Your task to perform on an android device: Clear the shopping cart on ebay.com. Add "acer nitro" to the cart on ebay.com, then select checkout. Image 0: 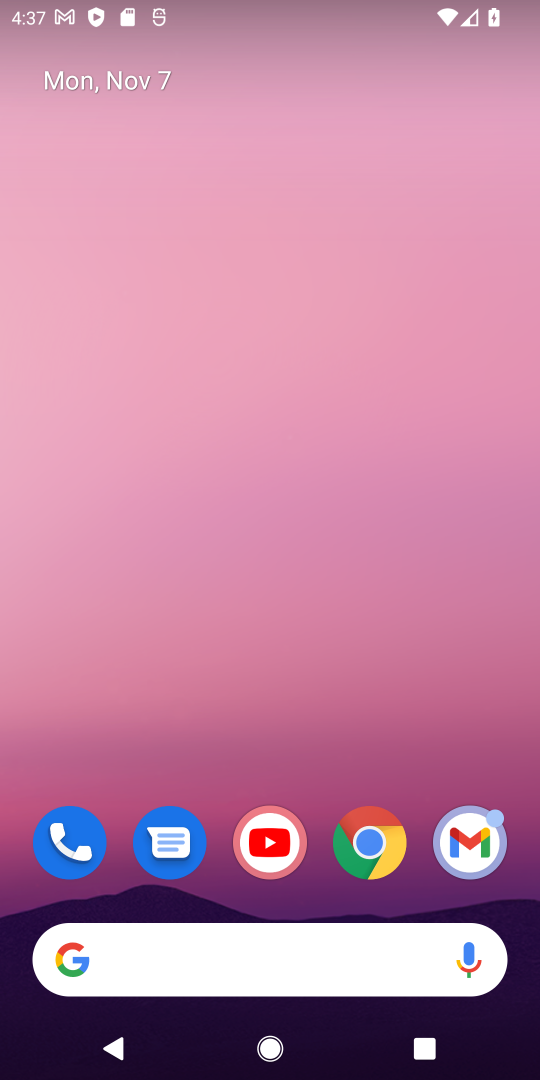
Step 0: click (381, 850)
Your task to perform on an android device: Clear the shopping cart on ebay.com. Add "acer nitro" to the cart on ebay.com, then select checkout. Image 1: 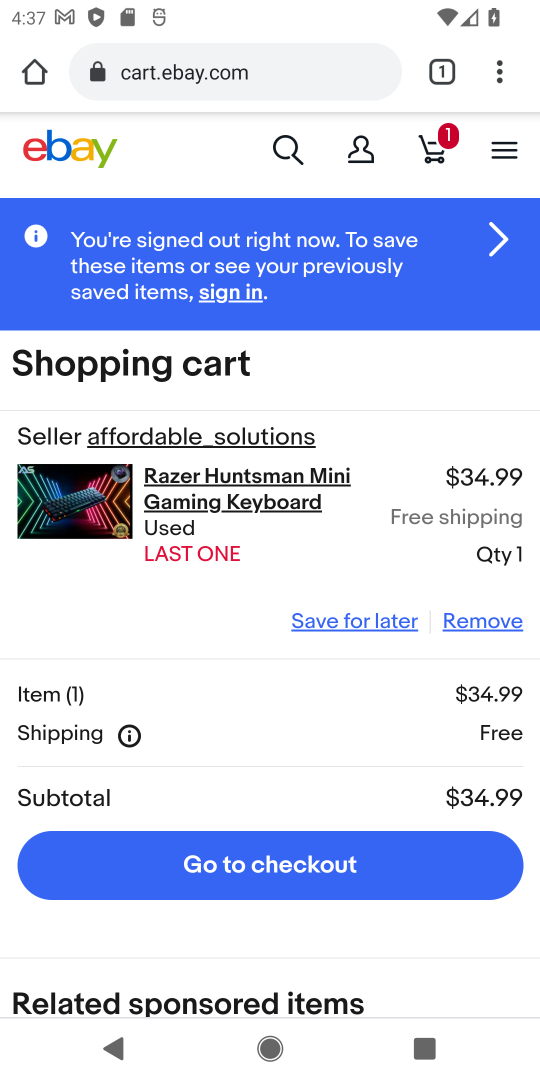
Step 1: click (439, 137)
Your task to perform on an android device: Clear the shopping cart on ebay.com. Add "acer nitro" to the cart on ebay.com, then select checkout. Image 2: 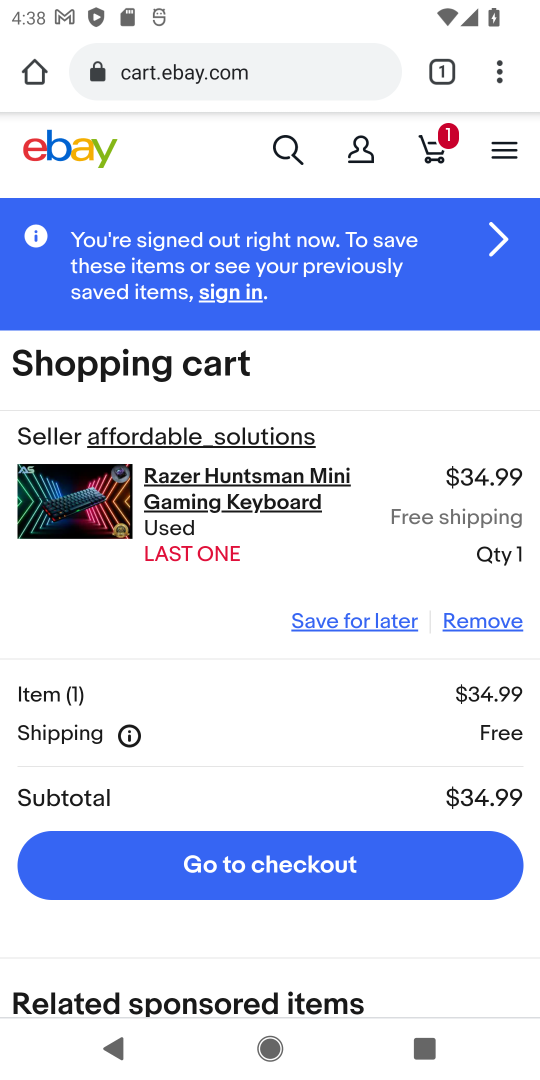
Step 2: click (439, 141)
Your task to perform on an android device: Clear the shopping cart on ebay.com. Add "acer nitro" to the cart on ebay.com, then select checkout. Image 3: 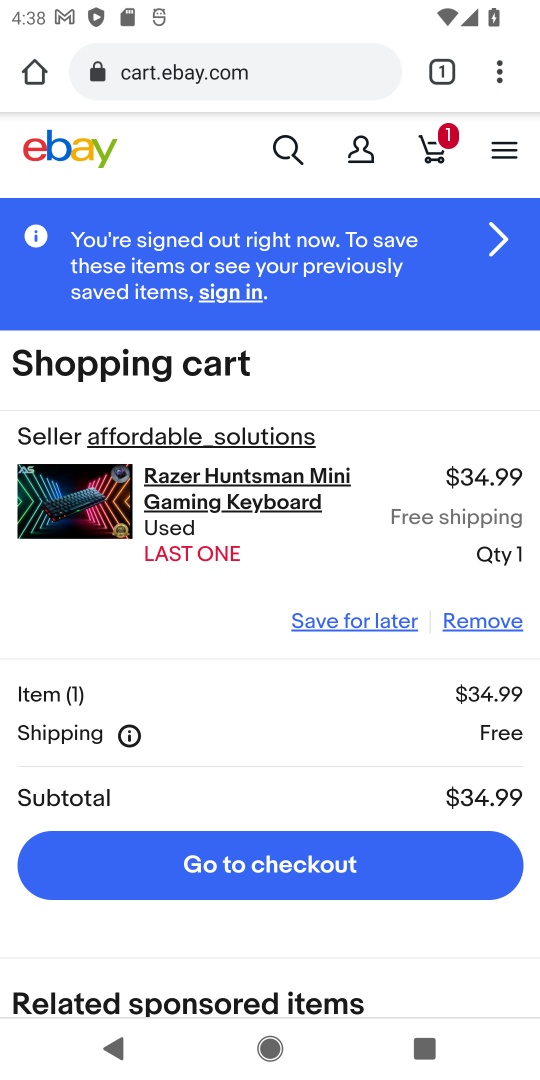
Step 3: click (431, 146)
Your task to perform on an android device: Clear the shopping cart on ebay.com. Add "acer nitro" to the cart on ebay.com, then select checkout. Image 4: 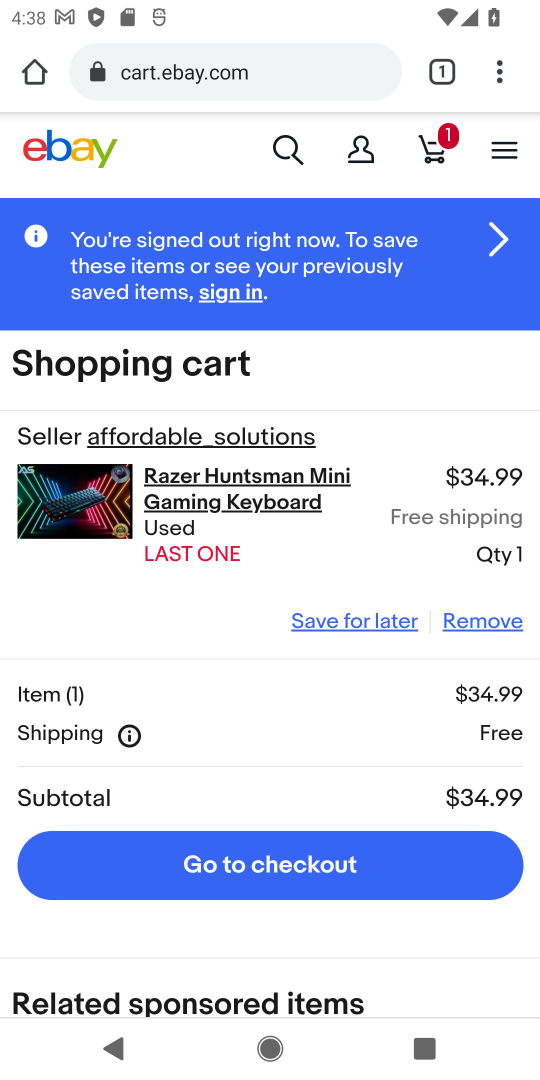
Step 4: click (430, 154)
Your task to perform on an android device: Clear the shopping cart on ebay.com. Add "acer nitro" to the cart on ebay.com, then select checkout. Image 5: 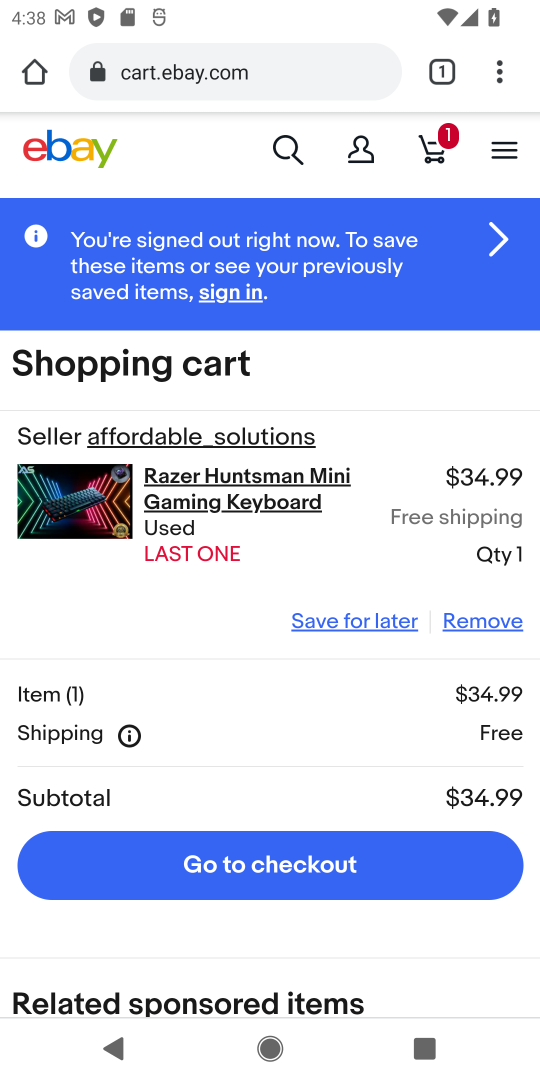
Step 5: click (472, 625)
Your task to perform on an android device: Clear the shopping cart on ebay.com. Add "acer nitro" to the cart on ebay.com, then select checkout. Image 6: 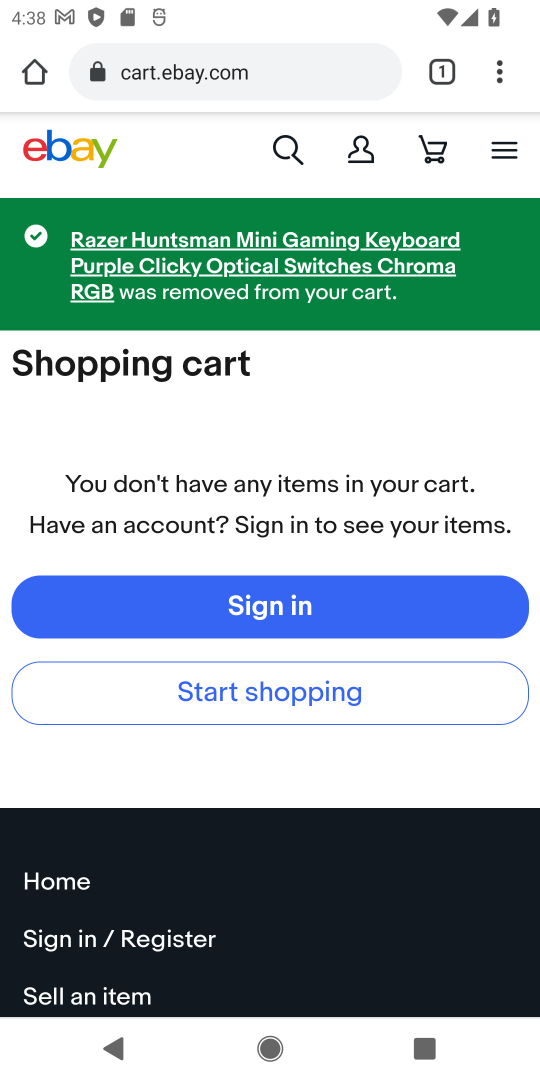
Step 6: click (284, 135)
Your task to perform on an android device: Clear the shopping cart on ebay.com. Add "acer nitro" to the cart on ebay.com, then select checkout. Image 7: 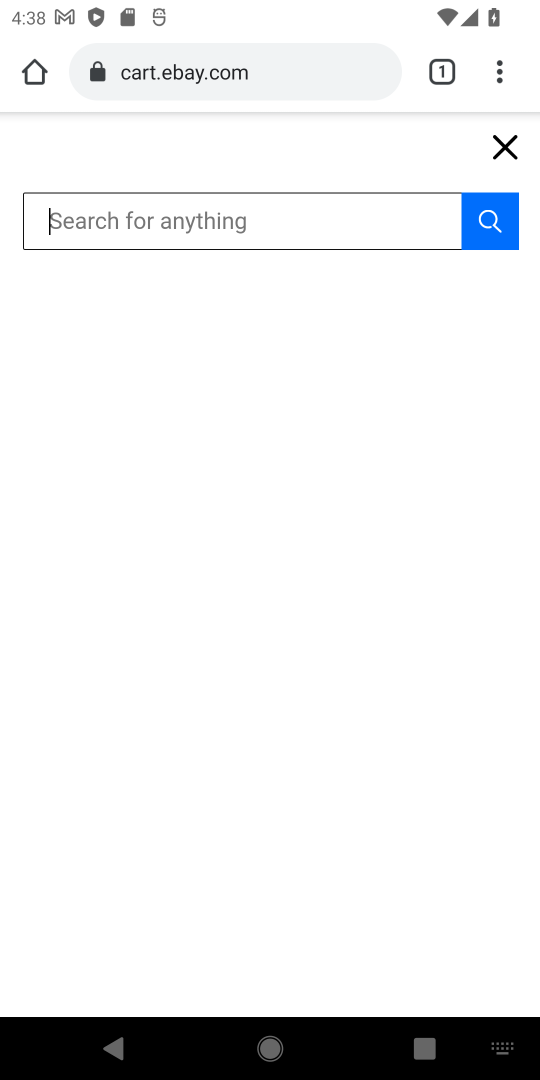
Step 7: type "acer nitro"
Your task to perform on an android device: Clear the shopping cart on ebay.com. Add "acer nitro" to the cart on ebay.com, then select checkout. Image 8: 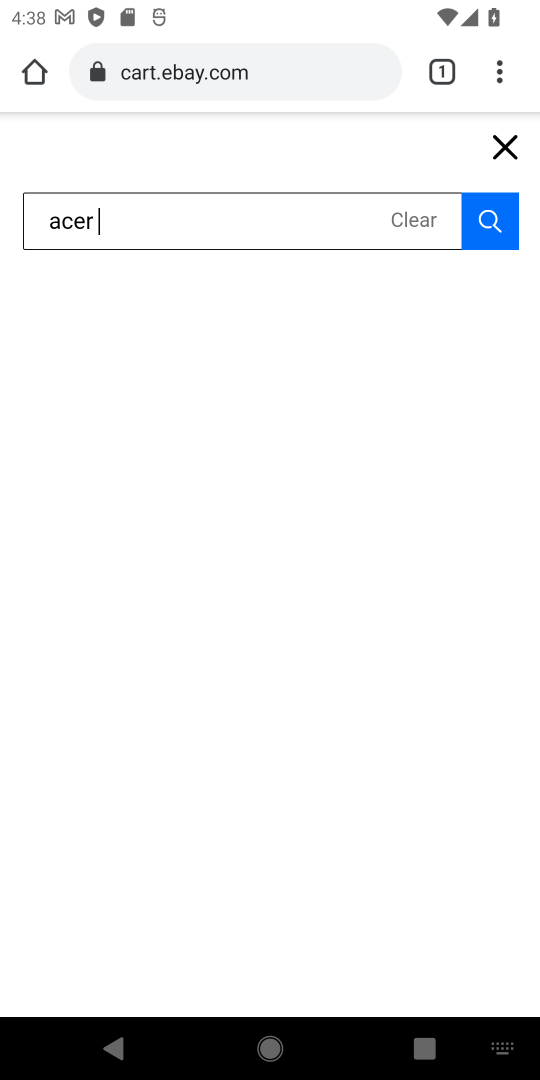
Step 8: press enter
Your task to perform on an android device: Clear the shopping cart on ebay.com. Add "acer nitro" to the cart on ebay.com, then select checkout. Image 9: 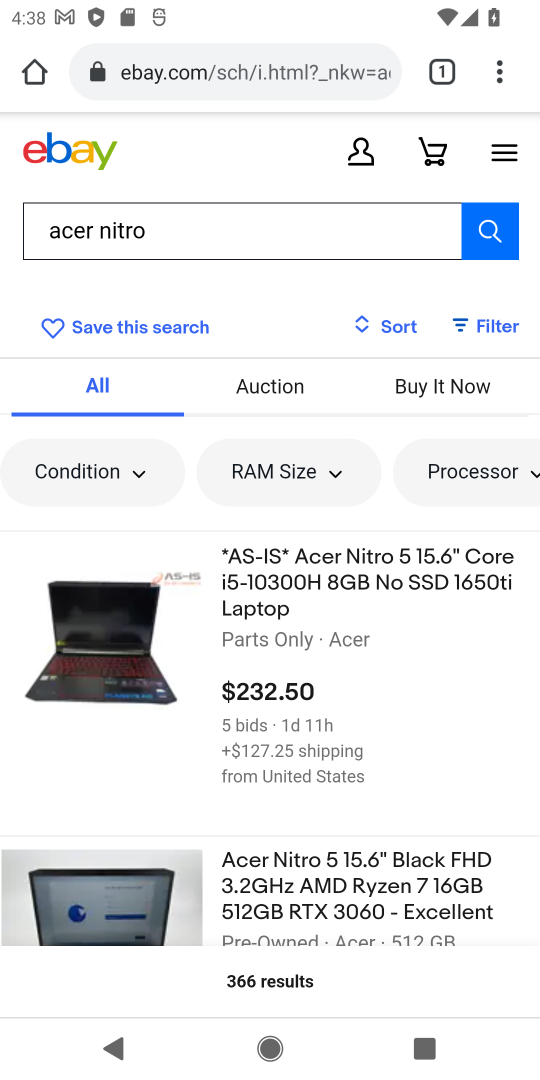
Step 9: click (391, 587)
Your task to perform on an android device: Clear the shopping cart on ebay.com. Add "acer nitro" to the cart on ebay.com, then select checkout. Image 10: 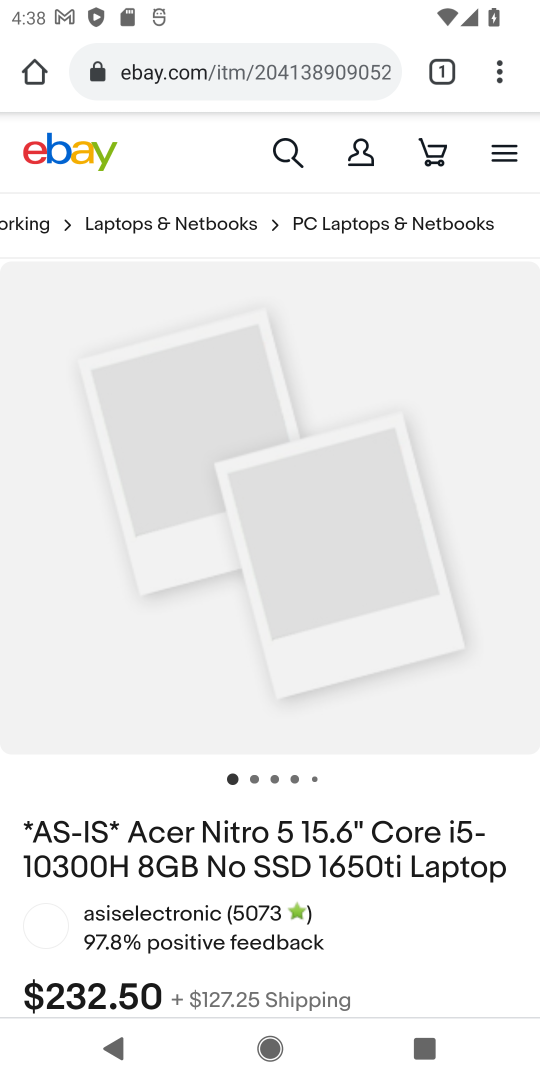
Step 10: task complete